Your task to perform on an android device: Open Chrome and go to settings Image 0: 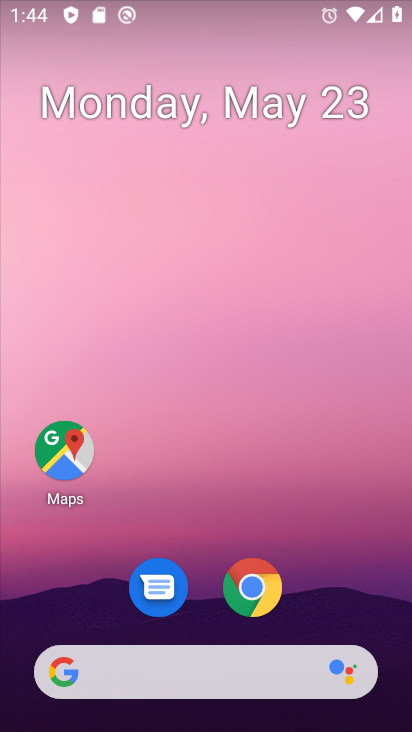
Step 0: click (279, 570)
Your task to perform on an android device: Open Chrome and go to settings Image 1: 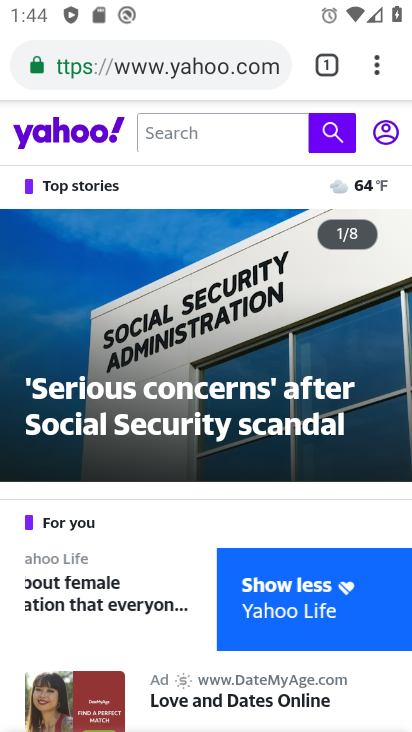
Step 1: click (379, 69)
Your task to perform on an android device: Open Chrome and go to settings Image 2: 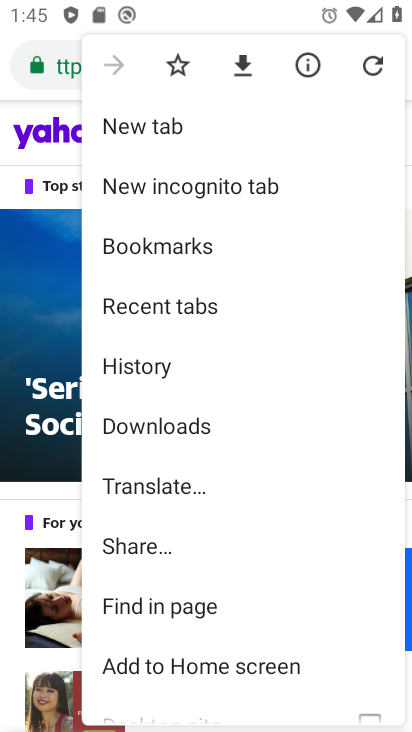
Step 2: drag from (273, 521) to (271, 226)
Your task to perform on an android device: Open Chrome and go to settings Image 3: 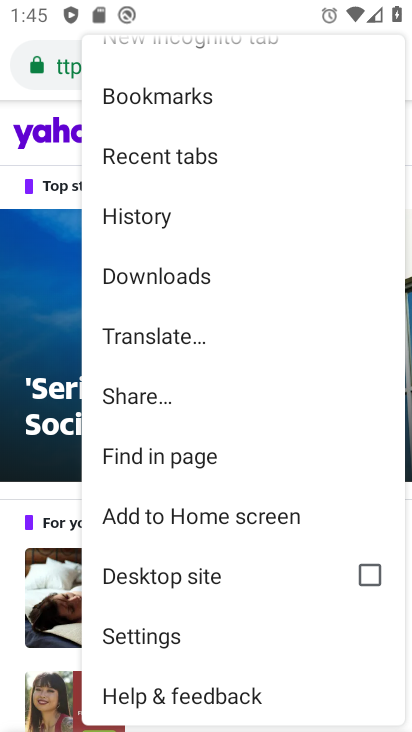
Step 3: click (237, 630)
Your task to perform on an android device: Open Chrome and go to settings Image 4: 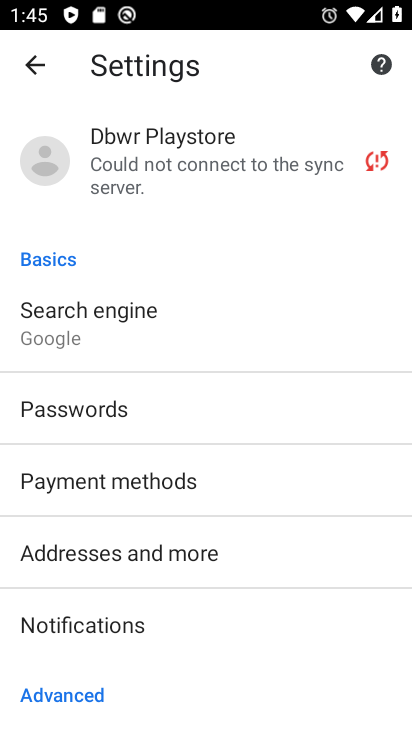
Step 4: task complete